Your task to perform on an android device: open the mobile data screen to see how much data has been used Image 0: 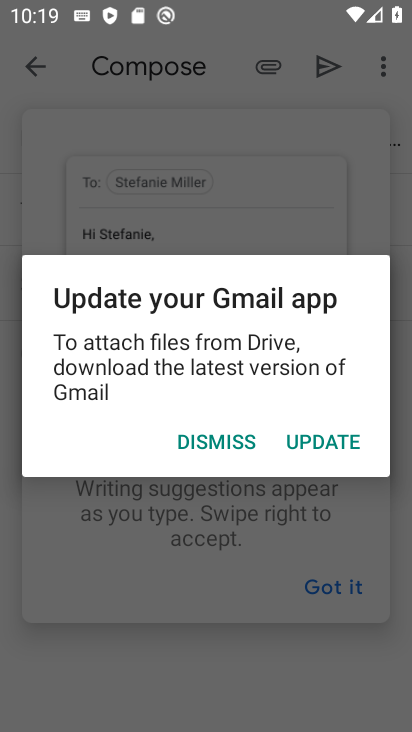
Step 0: press home button
Your task to perform on an android device: open the mobile data screen to see how much data has been used Image 1: 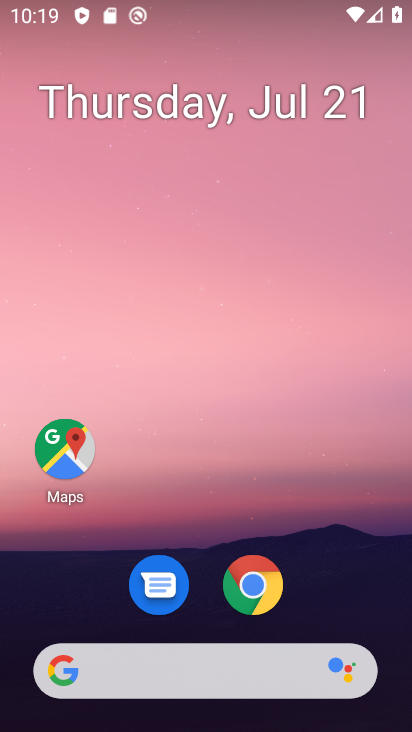
Step 1: drag from (242, 674) to (237, 22)
Your task to perform on an android device: open the mobile data screen to see how much data has been used Image 2: 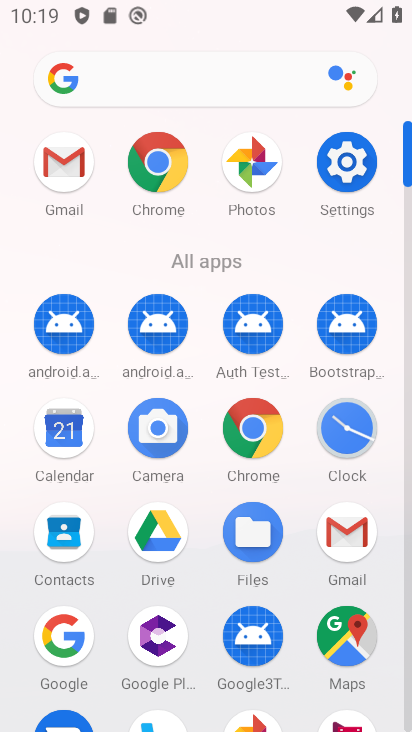
Step 2: click (360, 160)
Your task to perform on an android device: open the mobile data screen to see how much data has been used Image 3: 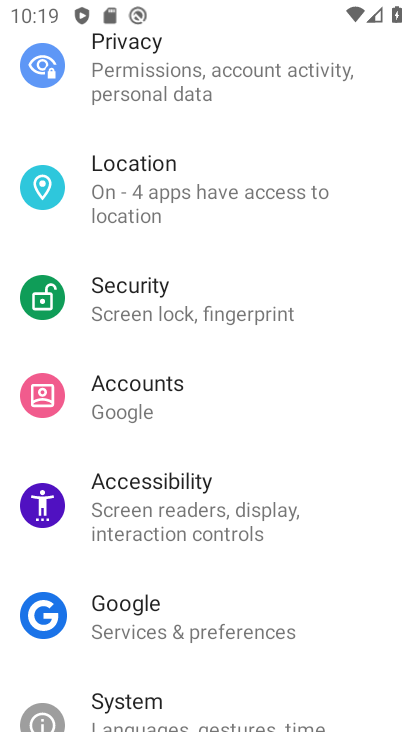
Step 3: drag from (306, 138) to (258, 601)
Your task to perform on an android device: open the mobile data screen to see how much data has been used Image 4: 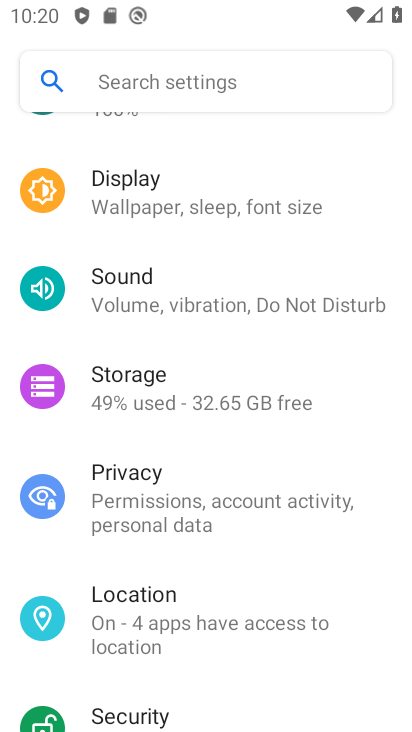
Step 4: drag from (271, 241) to (193, 646)
Your task to perform on an android device: open the mobile data screen to see how much data has been used Image 5: 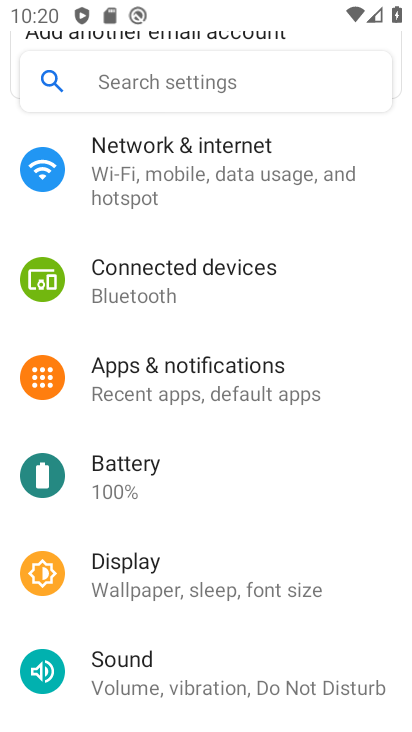
Step 5: click (202, 152)
Your task to perform on an android device: open the mobile data screen to see how much data has been used Image 6: 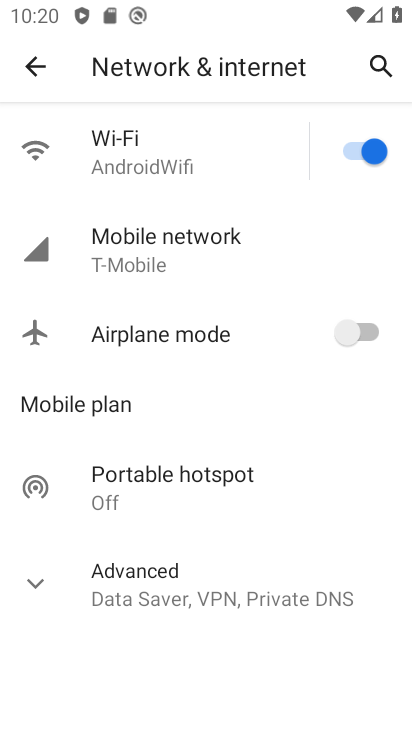
Step 6: click (170, 246)
Your task to perform on an android device: open the mobile data screen to see how much data has been used Image 7: 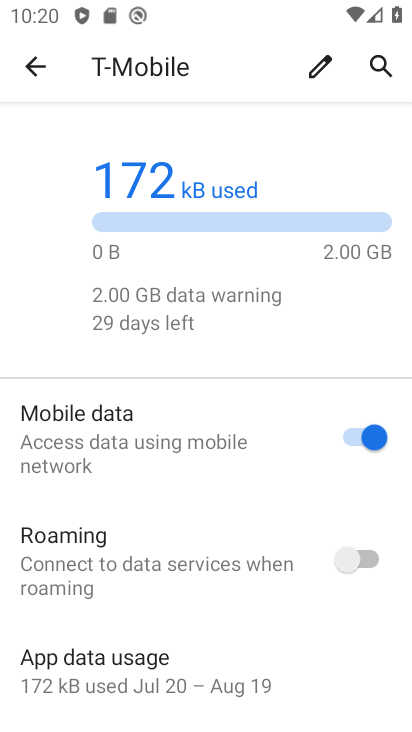
Step 7: task complete